Your task to perform on an android device: Go to ESPN.com Image 0: 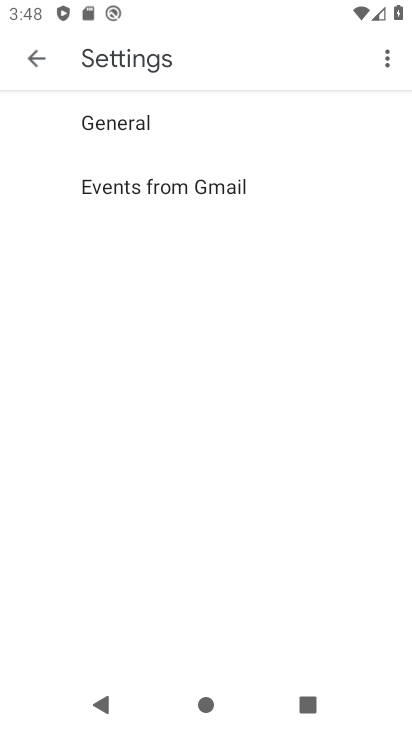
Step 0: press home button
Your task to perform on an android device: Go to ESPN.com Image 1: 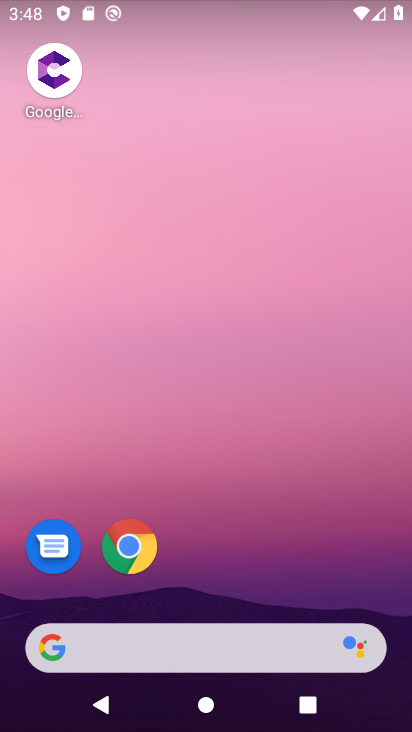
Step 1: click (114, 547)
Your task to perform on an android device: Go to ESPN.com Image 2: 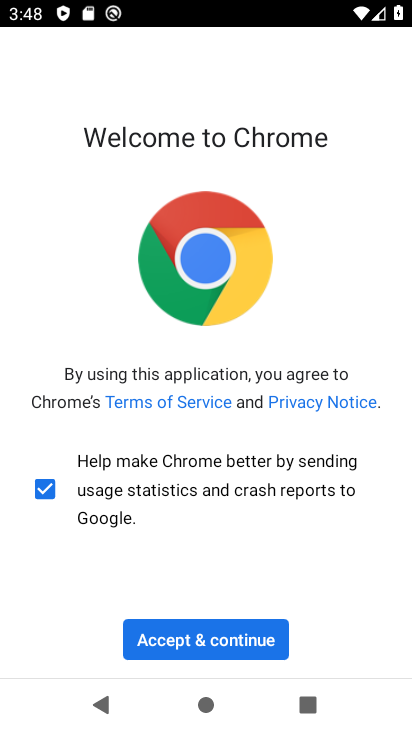
Step 2: click (193, 647)
Your task to perform on an android device: Go to ESPN.com Image 3: 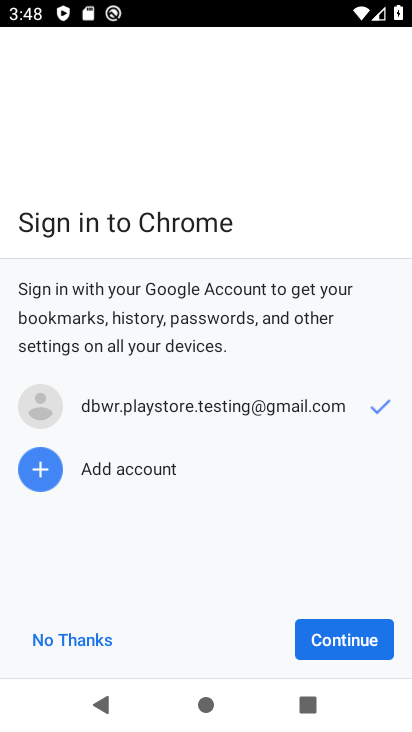
Step 3: click (356, 638)
Your task to perform on an android device: Go to ESPN.com Image 4: 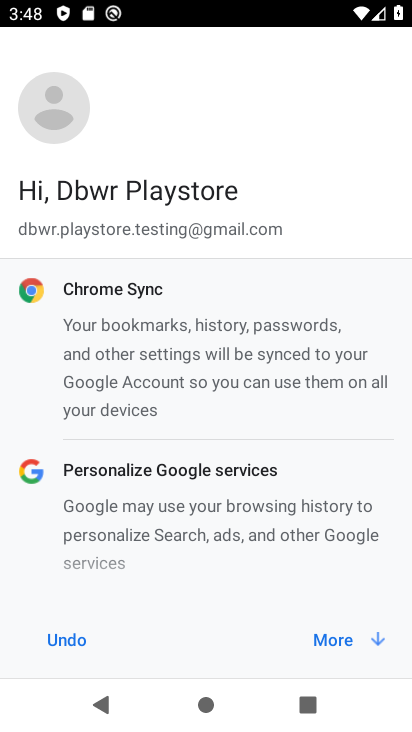
Step 4: click (352, 644)
Your task to perform on an android device: Go to ESPN.com Image 5: 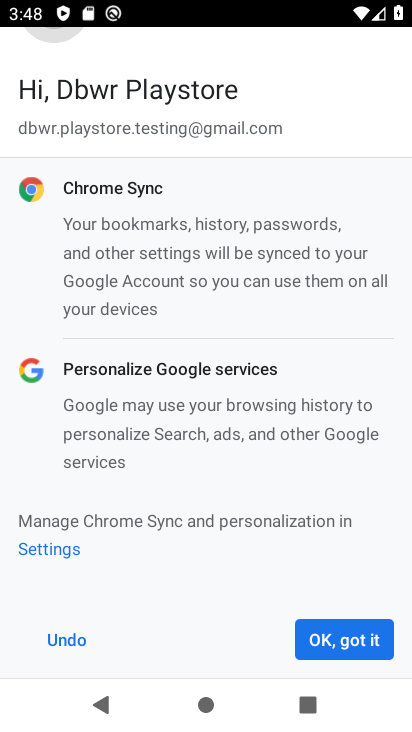
Step 5: click (353, 644)
Your task to perform on an android device: Go to ESPN.com Image 6: 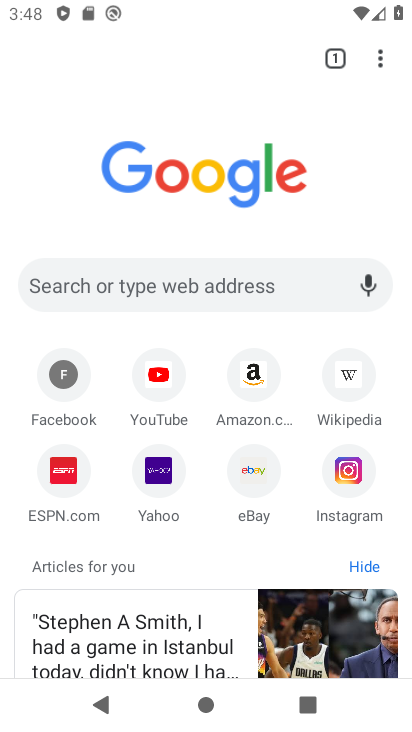
Step 6: click (77, 500)
Your task to perform on an android device: Go to ESPN.com Image 7: 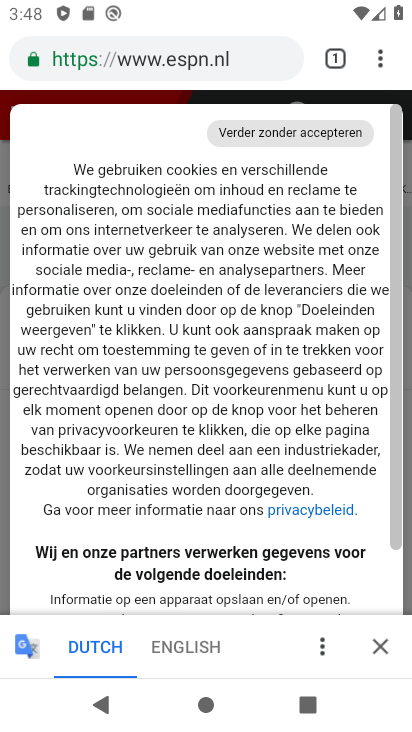
Step 7: task complete